Your task to perform on an android device: Go to Google Image 0: 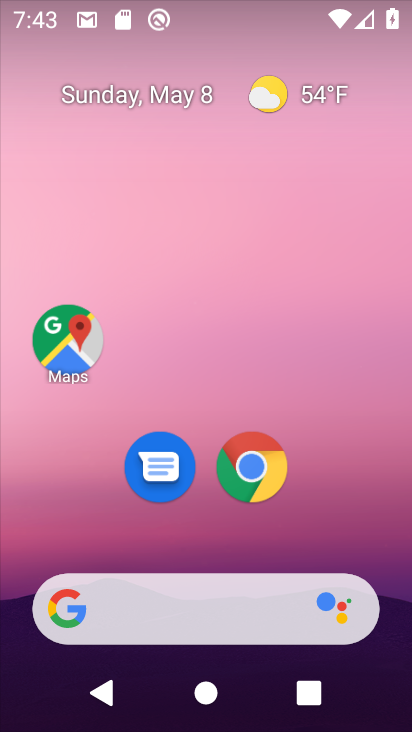
Step 0: click (257, 468)
Your task to perform on an android device: Go to Google Image 1: 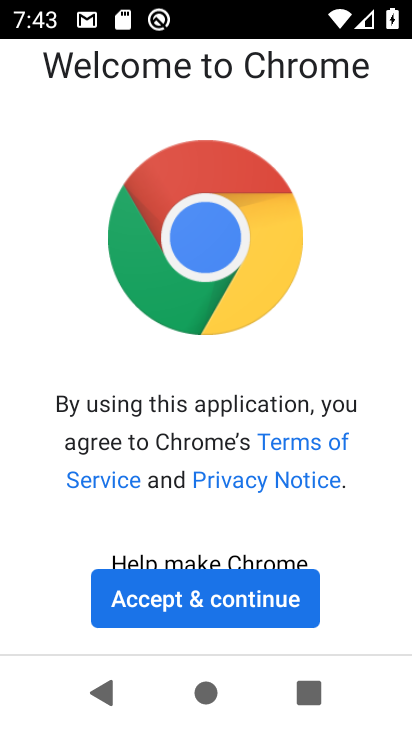
Step 1: click (193, 612)
Your task to perform on an android device: Go to Google Image 2: 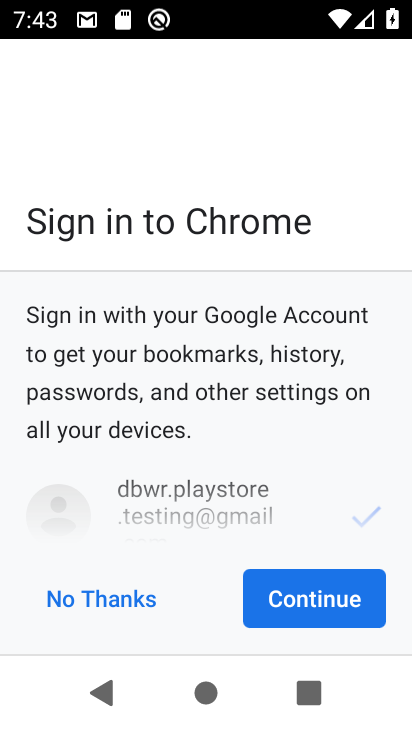
Step 2: click (275, 591)
Your task to perform on an android device: Go to Google Image 3: 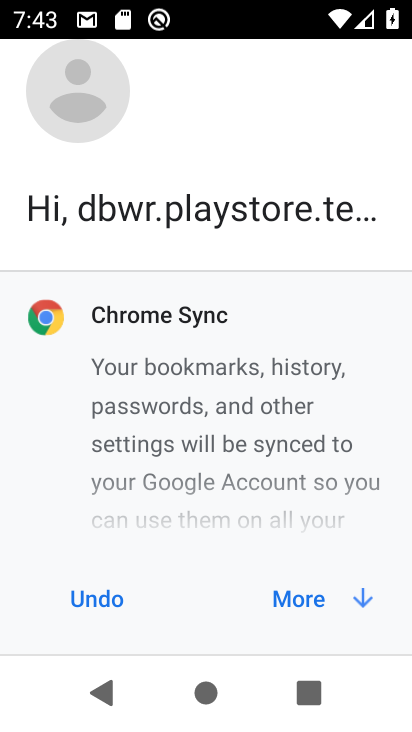
Step 3: click (278, 597)
Your task to perform on an android device: Go to Google Image 4: 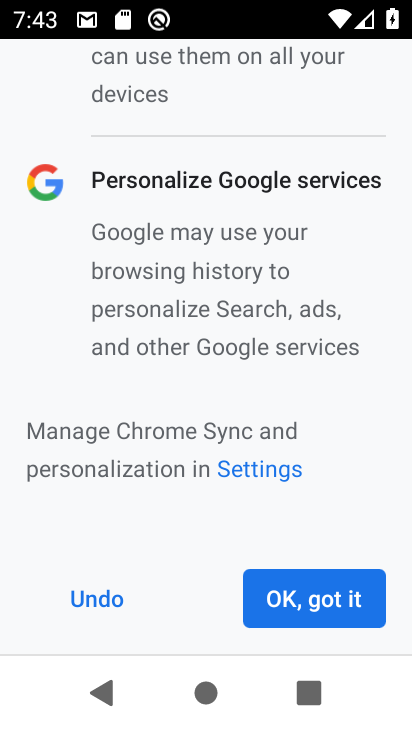
Step 4: click (278, 597)
Your task to perform on an android device: Go to Google Image 5: 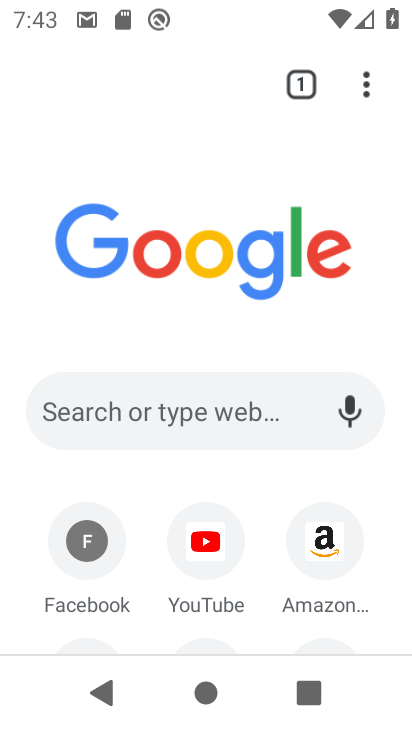
Step 5: click (206, 393)
Your task to perform on an android device: Go to Google Image 6: 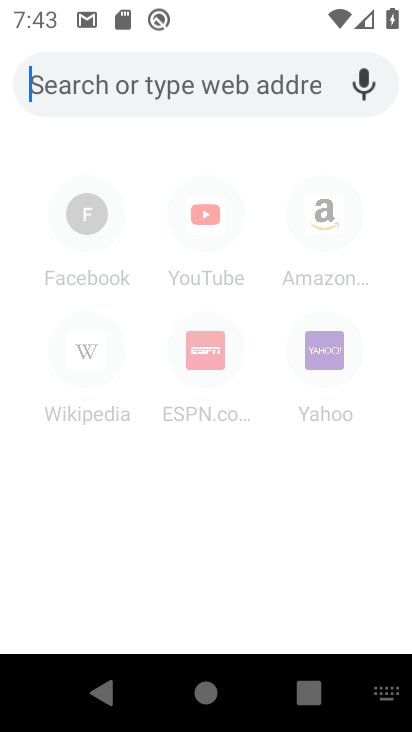
Step 6: task complete